Your task to perform on an android device: check the backup settings in the google photos Image 0: 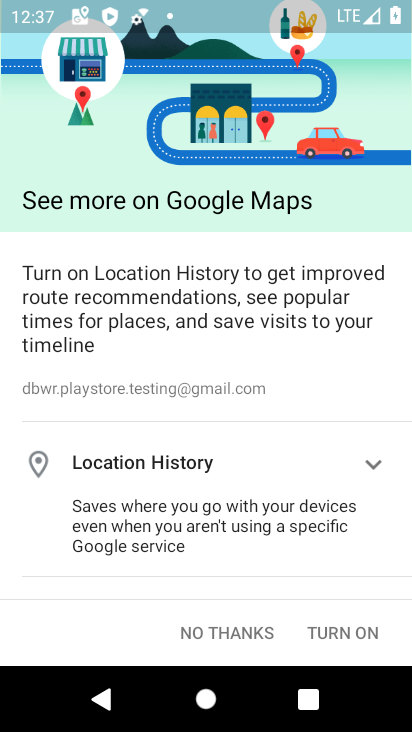
Step 0: press home button
Your task to perform on an android device: check the backup settings in the google photos Image 1: 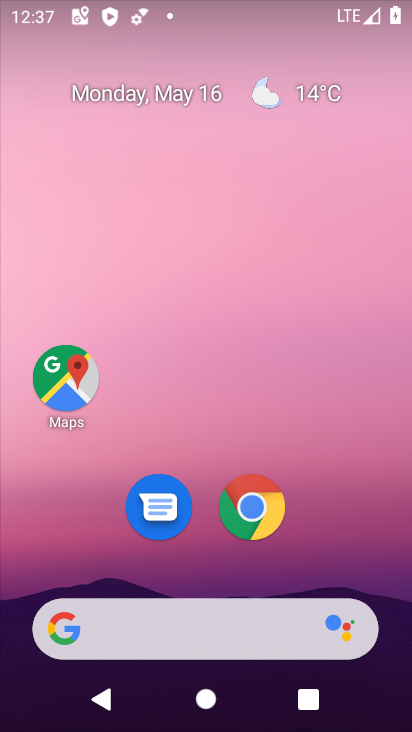
Step 1: drag from (332, 543) to (254, 72)
Your task to perform on an android device: check the backup settings in the google photos Image 2: 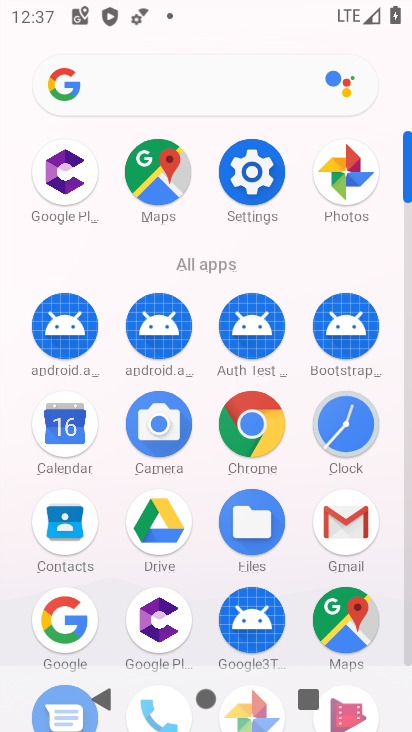
Step 2: click (344, 189)
Your task to perform on an android device: check the backup settings in the google photos Image 3: 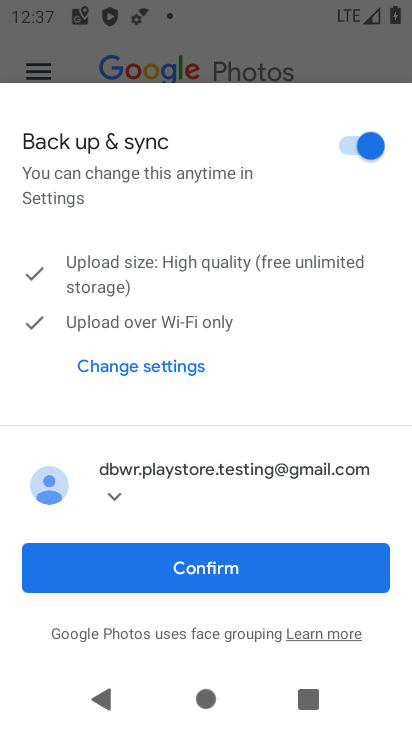
Step 3: click (318, 568)
Your task to perform on an android device: check the backup settings in the google photos Image 4: 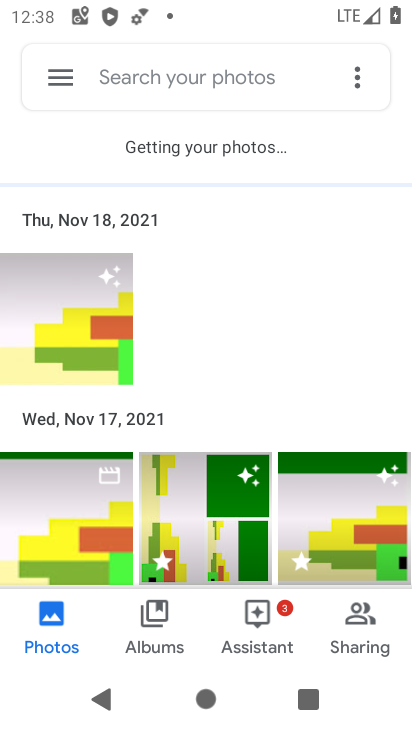
Step 4: click (63, 68)
Your task to perform on an android device: check the backup settings in the google photos Image 5: 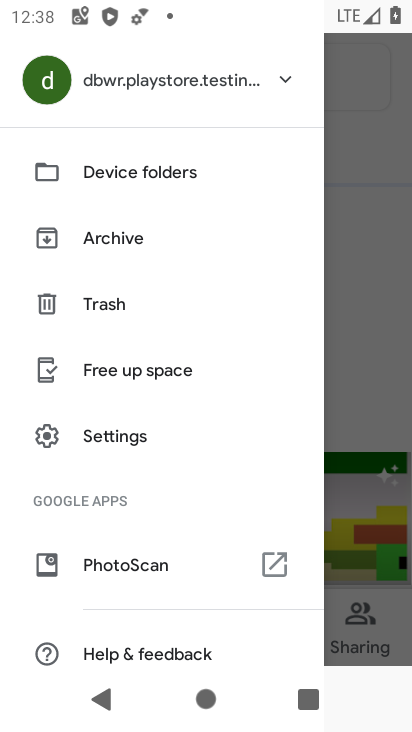
Step 5: click (155, 421)
Your task to perform on an android device: check the backup settings in the google photos Image 6: 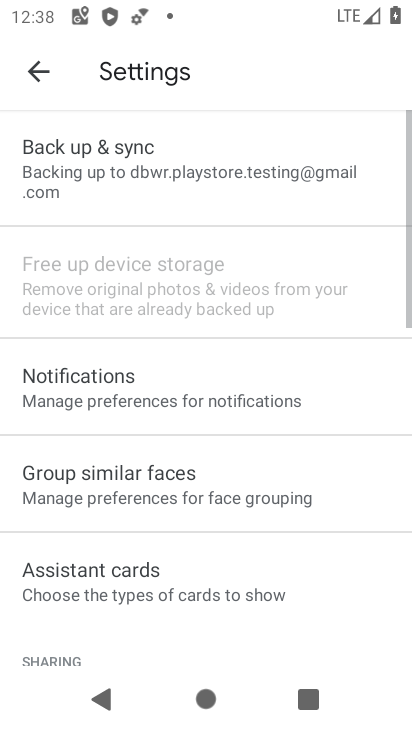
Step 6: click (111, 160)
Your task to perform on an android device: check the backup settings in the google photos Image 7: 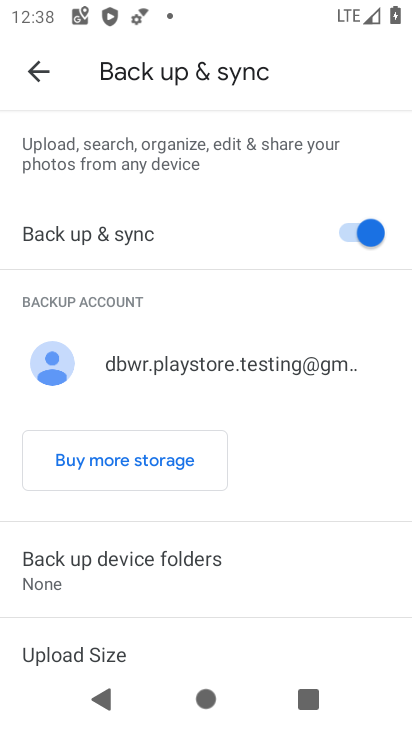
Step 7: task complete